Your task to perform on an android device: manage bookmarks in the chrome app Image 0: 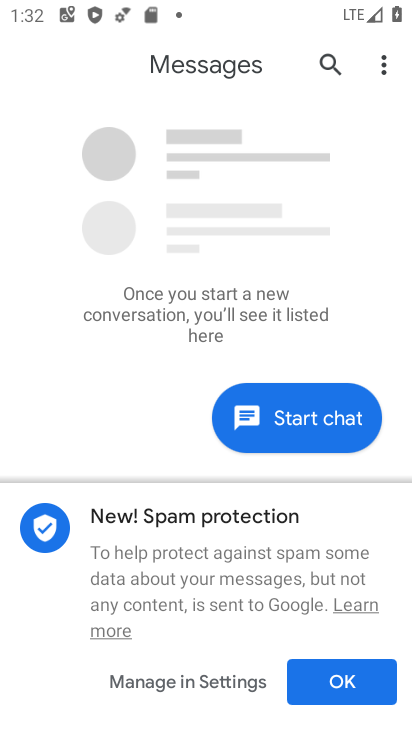
Step 0: press home button
Your task to perform on an android device: manage bookmarks in the chrome app Image 1: 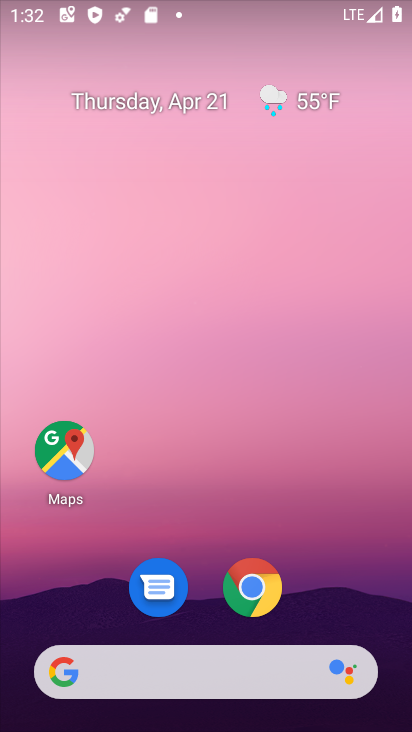
Step 1: click (251, 596)
Your task to perform on an android device: manage bookmarks in the chrome app Image 2: 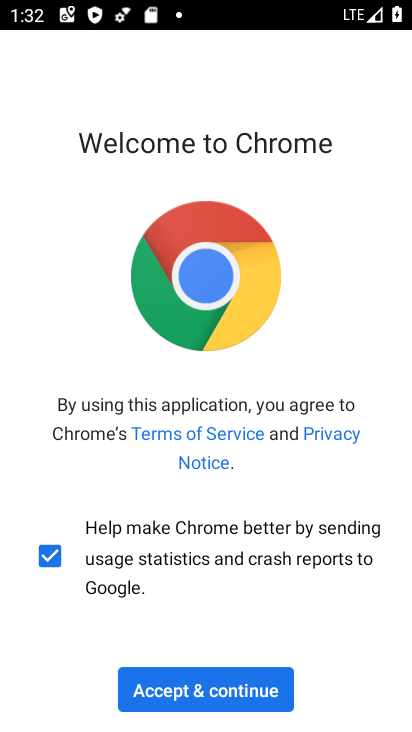
Step 2: click (198, 691)
Your task to perform on an android device: manage bookmarks in the chrome app Image 3: 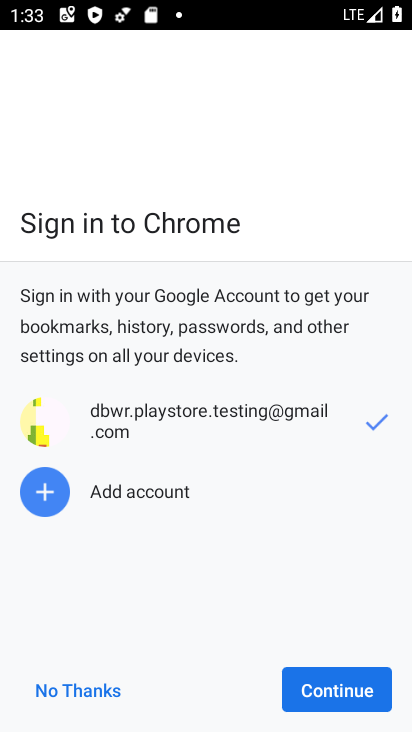
Step 3: click (316, 681)
Your task to perform on an android device: manage bookmarks in the chrome app Image 4: 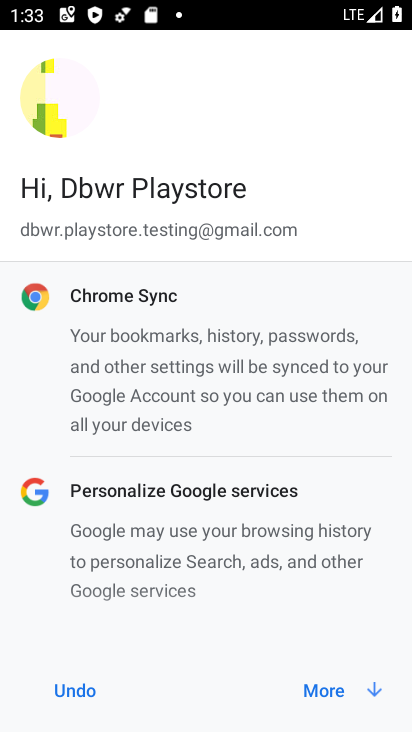
Step 4: click (316, 681)
Your task to perform on an android device: manage bookmarks in the chrome app Image 5: 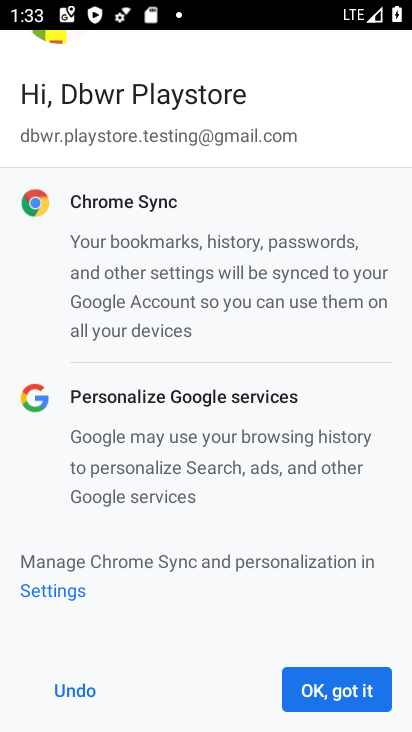
Step 5: click (316, 681)
Your task to perform on an android device: manage bookmarks in the chrome app Image 6: 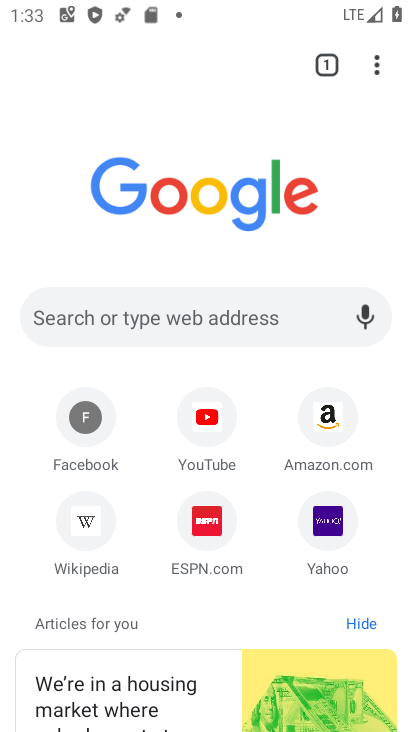
Step 6: click (374, 67)
Your task to perform on an android device: manage bookmarks in the chrome app Image 7: 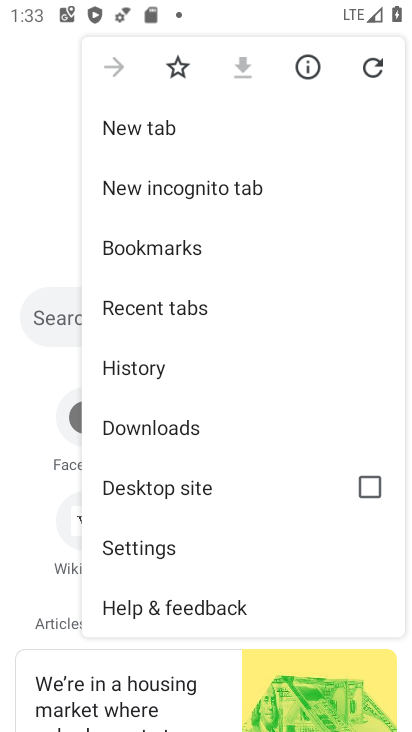
Step 7: click (147, 245)
Your task to perform on an android device: manage bookmarks in the chrome app Image 8: 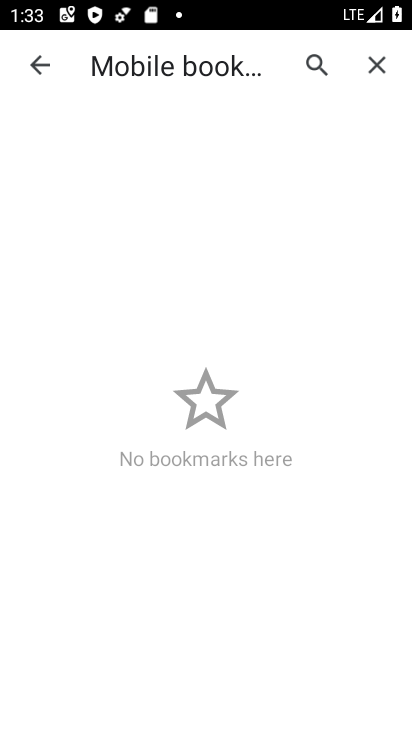
Step 8: task complete